Your task to perform on an android device: toggle sleep mode Image 0: 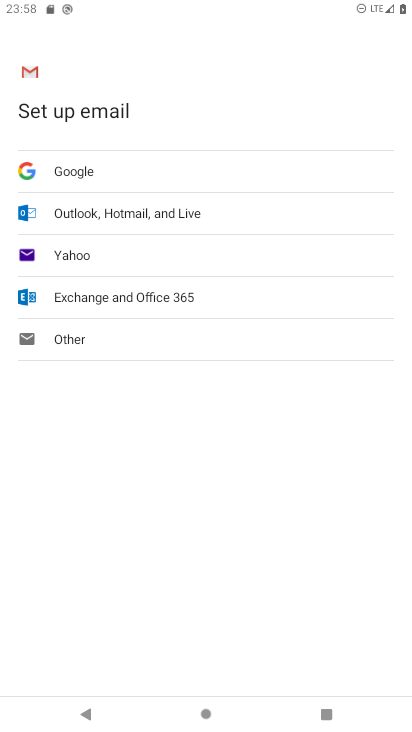
Step 0: press home button
Your task to perform on an android device: toggle sleep mode Image 1: 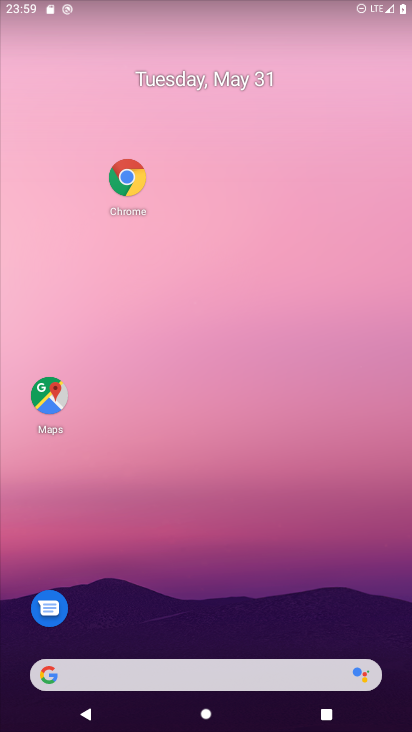
Step 1: drag from (232, 597) to (232, 82)
Your task to perform on an android device: toggle sleep mode Image 2: 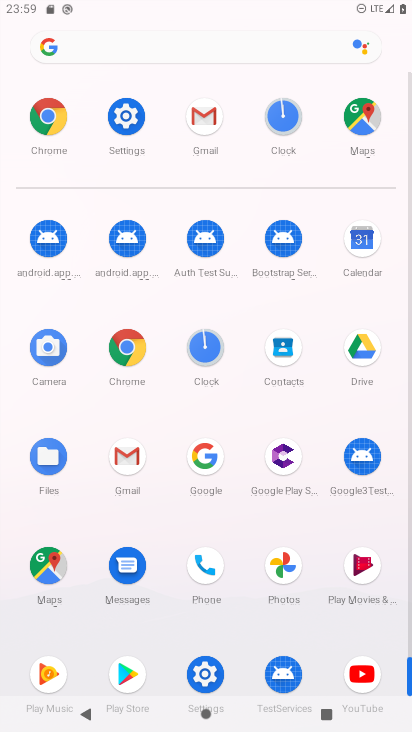
Step 2: click (151, 117)
Your task to perform on an android device: toggle sleep mode Image 3: 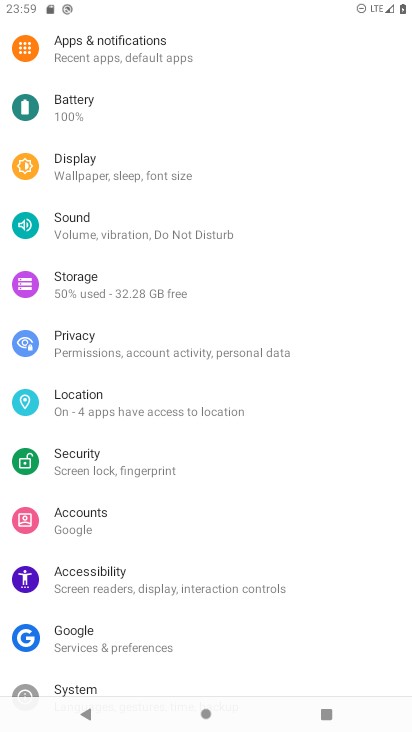
Step 3: drag from (140, 642) to (159, 729)
Your task to perform on an android device: toggle sleep mode Image 4: 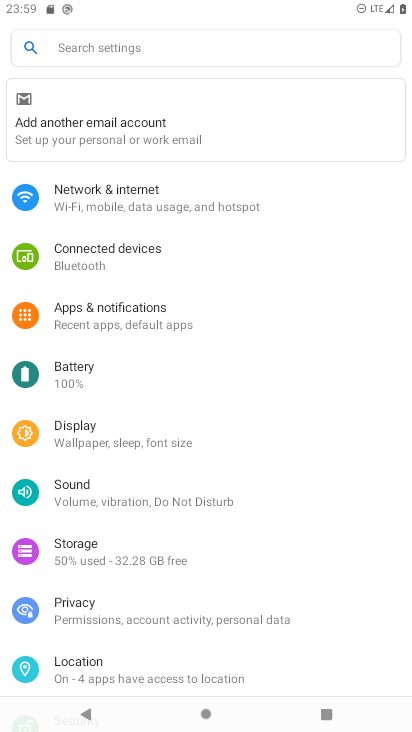
Step 4: click (103, 439)
Your task to perform on an android device: toggle sleep mode Image 5: 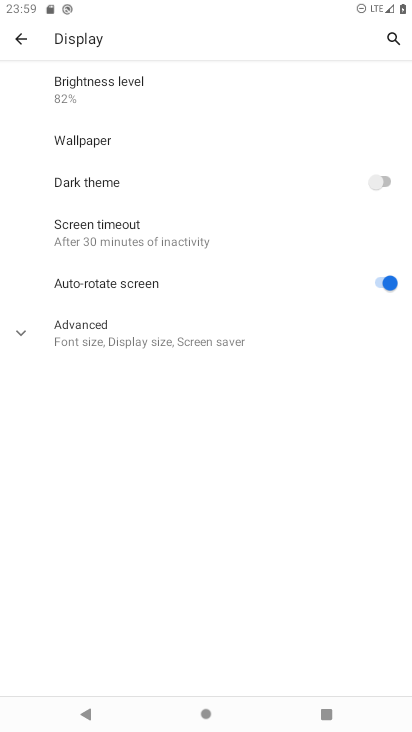
Step 5: task complete